Your task to perform on an android device: change the upload size in google photos Image 0: 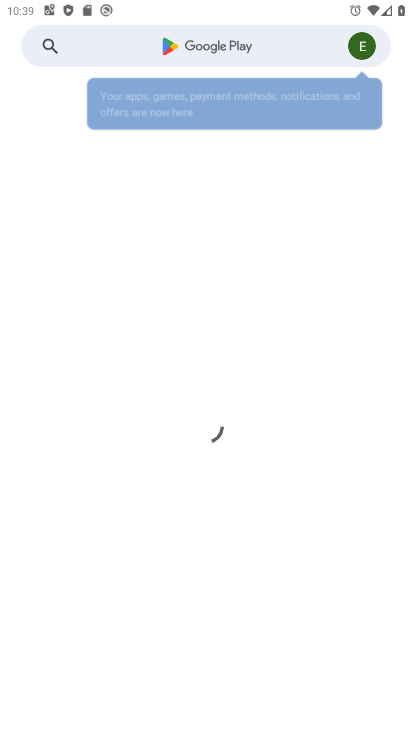
Step 0: press home button
Your task to perform on an android device: change the upload size in google photos Image 1: 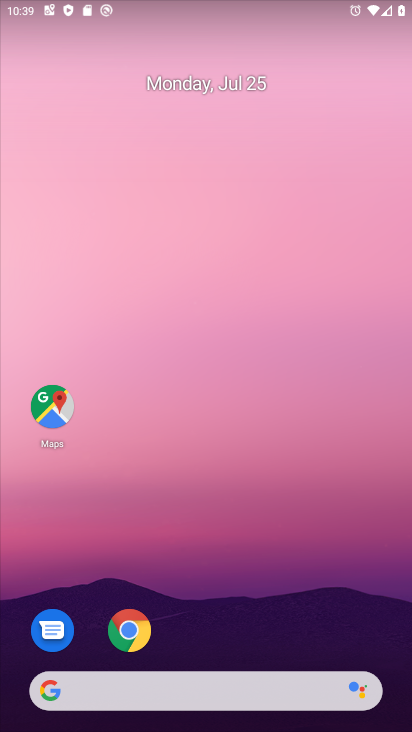
Step 1: drag from (206, 694) to (231, 110)
Your task to perform on an android device: change the upload size in google photos Image 2: 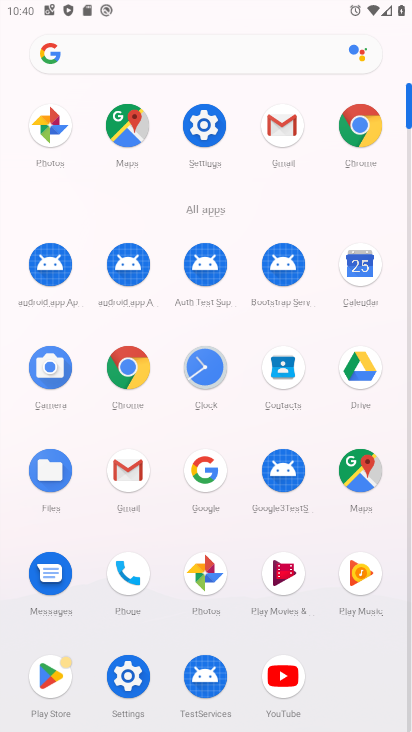
Step 2: click (209, 583)
Your task to perform on an android device: change the upload size in google photos Image 3: 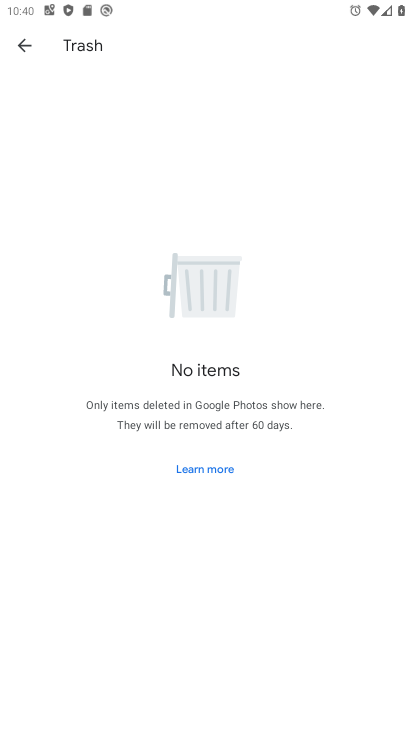
Step 3: click (21, 39)
Your task to perform on an android device: change the upload size in google photos Image 4: 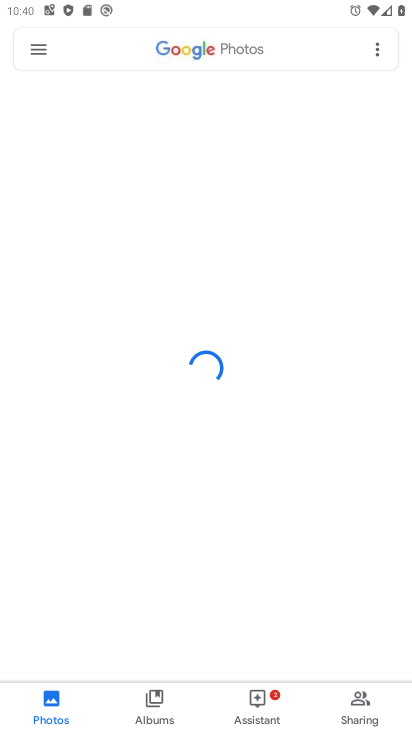
Step 4: click (37, 61)
Your task to perform on an android device: change the upload size in google photos Image 5: 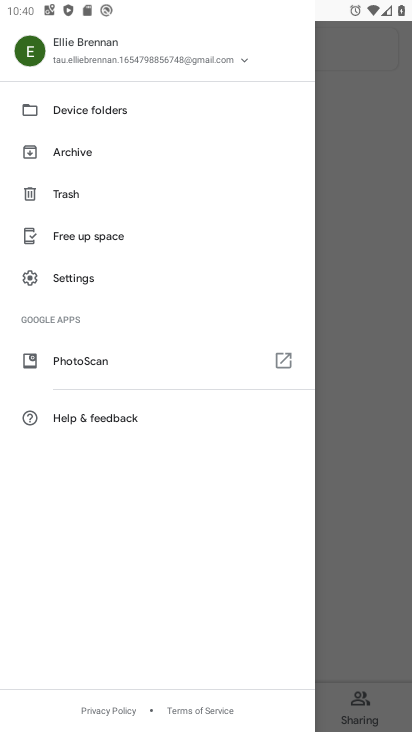
Step 5: click (74, 279)
Your task to perform on an android device: change the upload size in google photos Image 6: 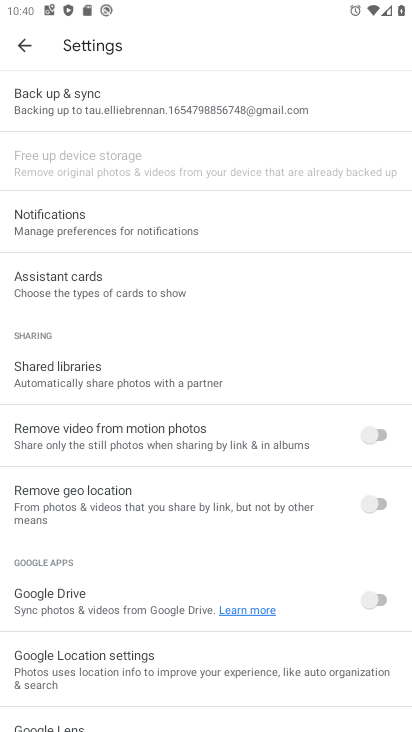
Step 6: click (100, 126)
Your task to perform on an android device: change the upload size in google photos Image 7: 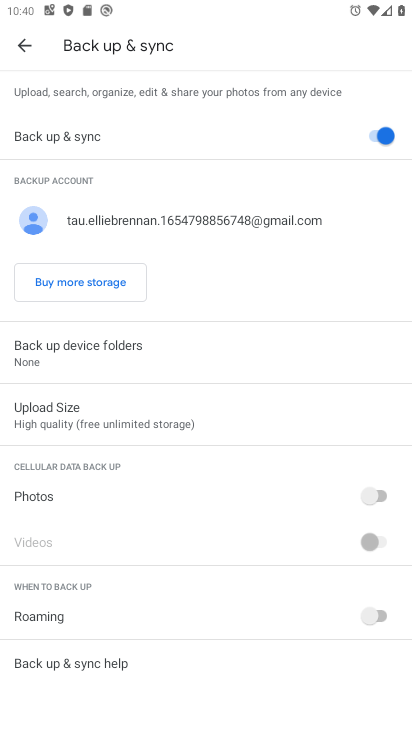
Step 7: click (153, 417)
Your task to perform on an android device: change the upload size in google photos Image 8: 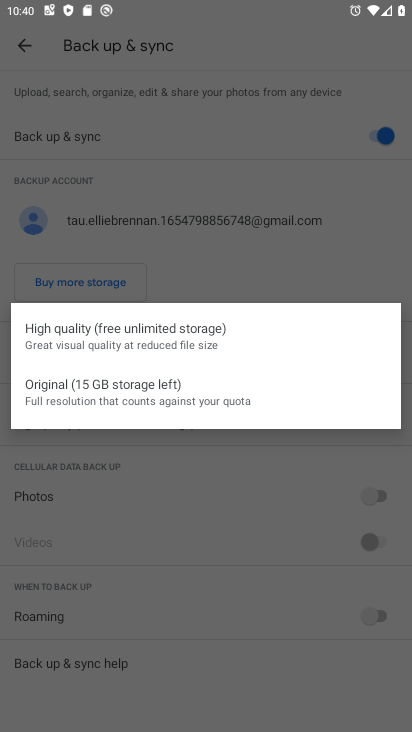
Step 8: click (111, 395)
Your task to perform on an android device: change the upload size in google photos Image 9: 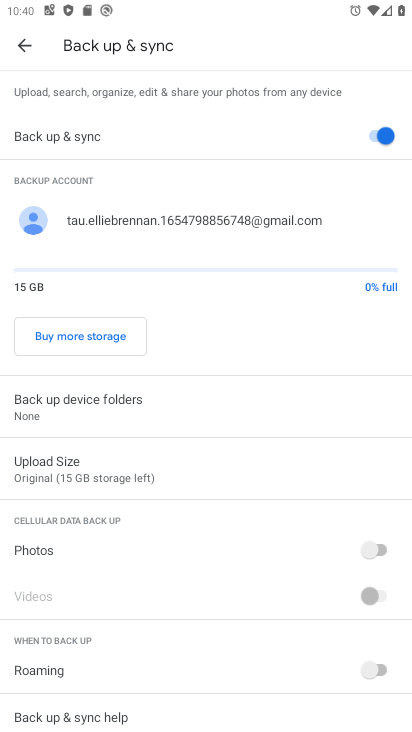
Step 9: task complete